Your task to perform on an android device: turn smart compose on in the gmail app Image 0: 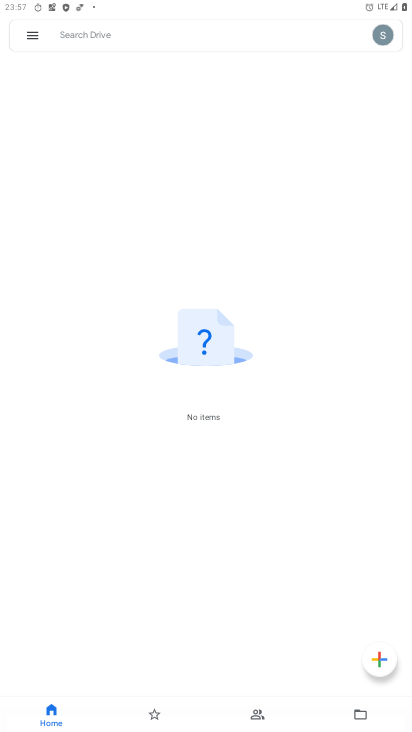
Step 0: press home button
Your task to perform on an android device: turn smart compose on in the gmail app Image 1: 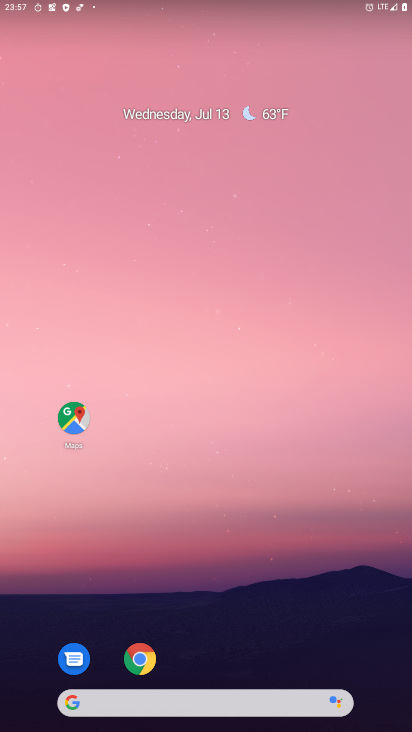
Step 1: drag from (306, 553) to (286, 219)
Your task to perform on an android device: turn smart compose on in the gmail app Image 2: 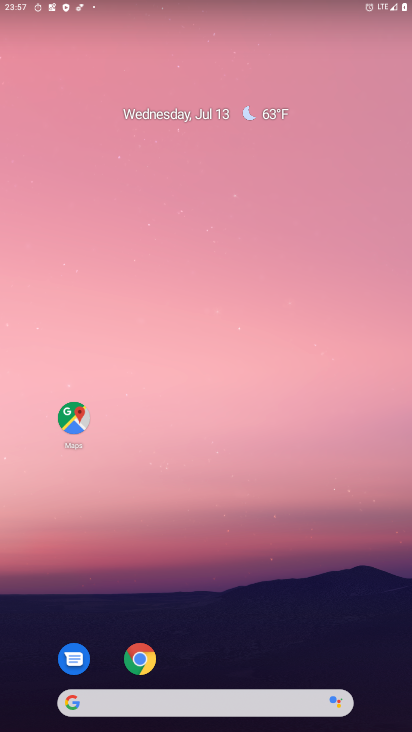
Step 2: drag from (345, 542) to (271, 109)
Your task to perform on an android device: turn smart compose on in the gmail app Image 3: 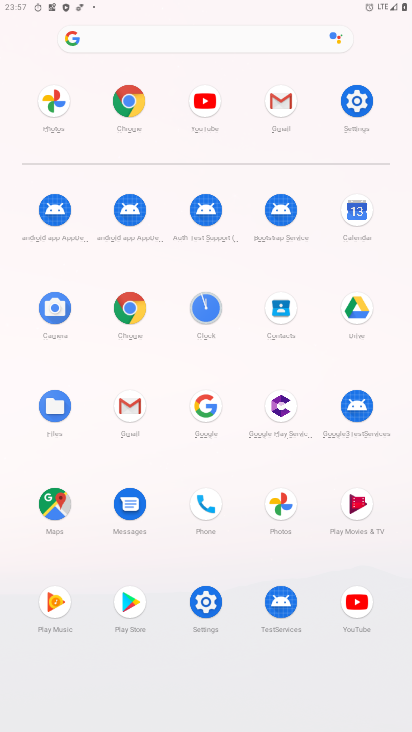
Step 3: click (276, 99)
Your task to perform on an android device: turn smart compose on in the gmail app Image 4: 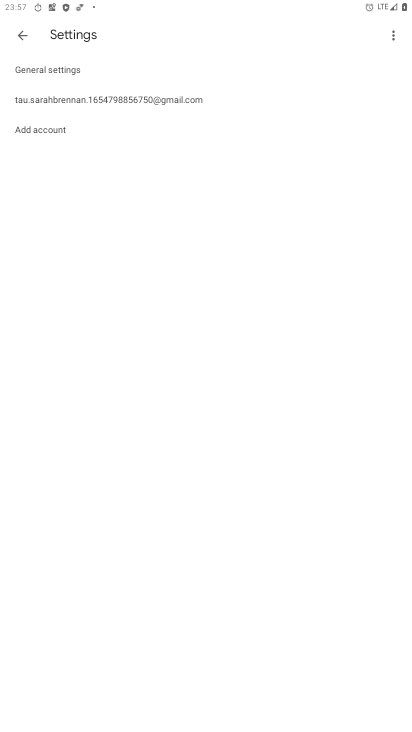
Step 4: click (190, 102)
Your task to perform on an android device: turn smart compose on in the gmail app Image 5: 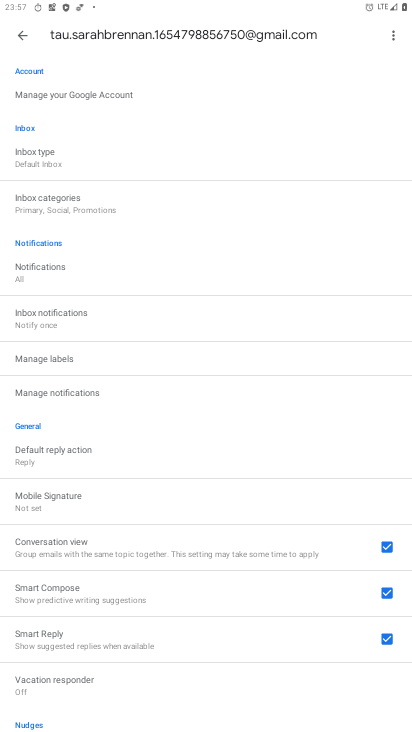
Step 5: task complete